Your task to perform on an android device: delete the emails in spam in the gmail app Image 0: 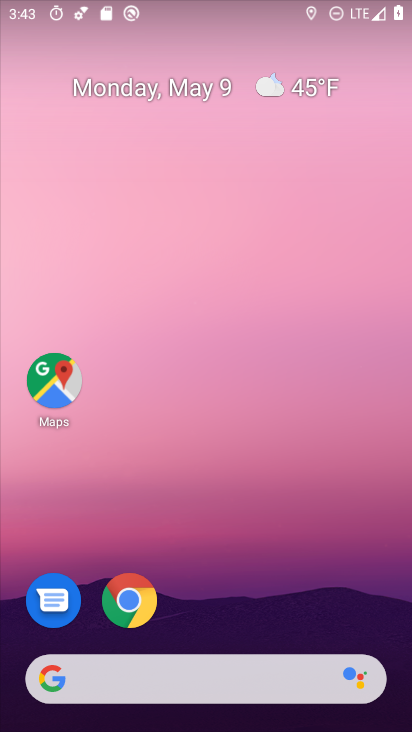
Step 0: drag from (202, 525) to (42, 276)
Your task to perform on an android device: delete the emails in spam in the gmail app Image 1: 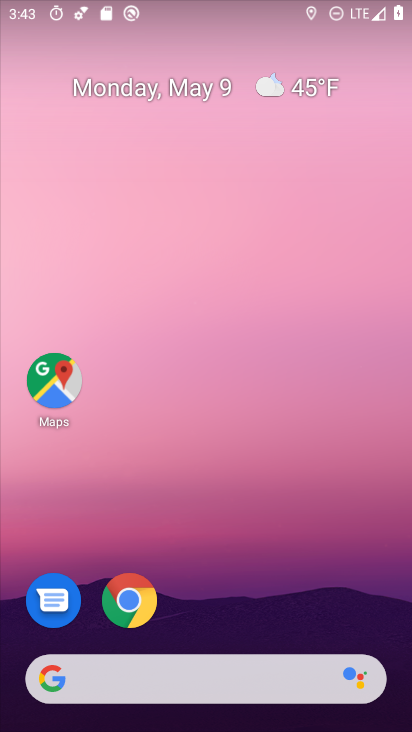
Step 1: click (121, 540)
Your task to perform on an android device: delete the emails in spam in the gmail app Image 2: 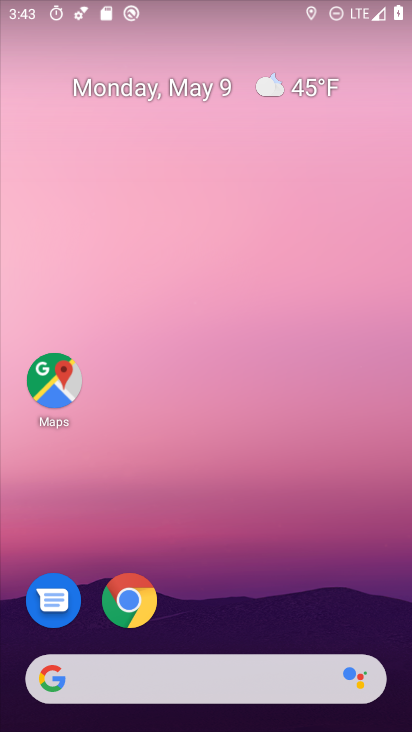
Step 2: drag from (233, 452) to (219, 39)
Your task to perform on an android device: delete the emails in spam in the gmail app Image 3: 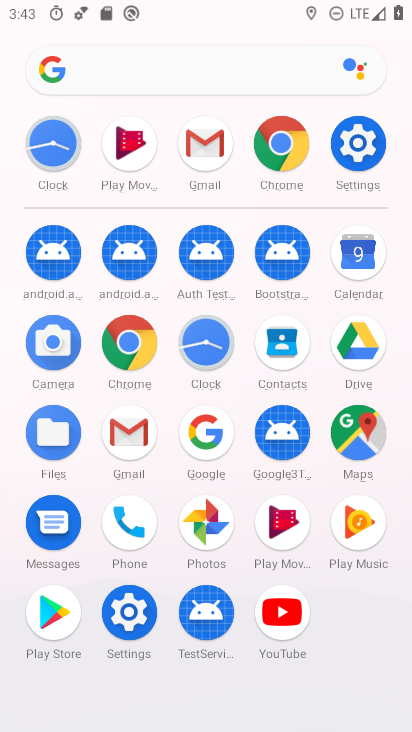
Step 3: click (126, 421)
Your task to perform on an android device: delete the emails in spam in the gmail app Image 4: 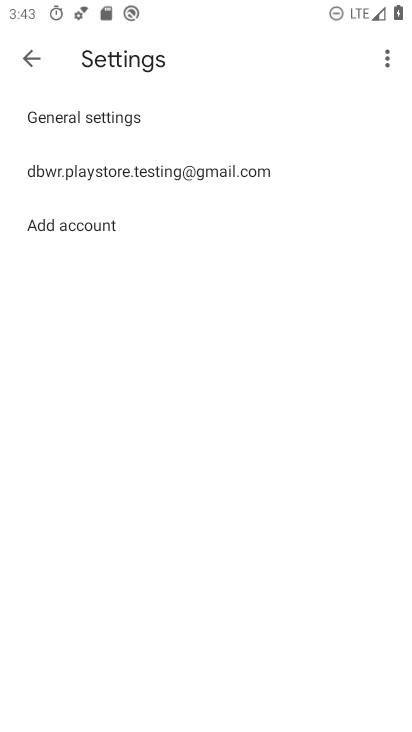
Step 4: click (40, 55)
Your task to perform on an android device: delete the emails in spam in the gmail app Image 5: 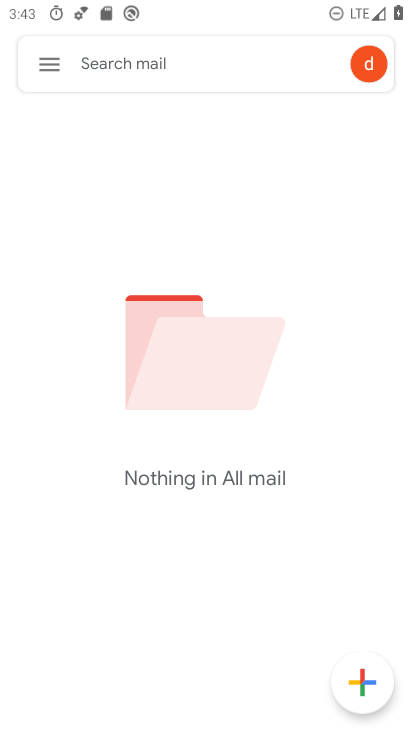
Step 5: click (56, 67)
Your task to perform on an android device: delete the emails in spam in the gmail app Image 6: 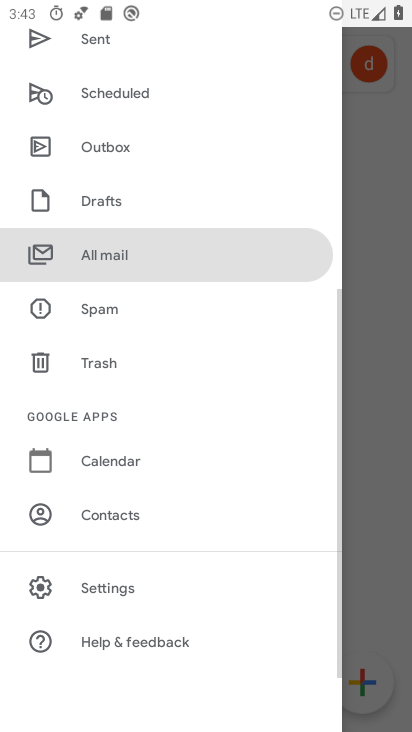
Step 6: click (108, 313)
Your task to perform on an android device: delete the emails in spam in the gmail app Image 7: 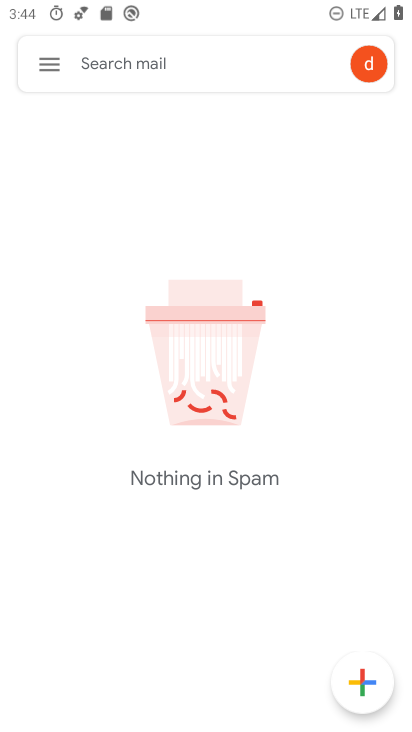
Step 7: task complete